Your task to perform on an android device: Open maps Image 0: 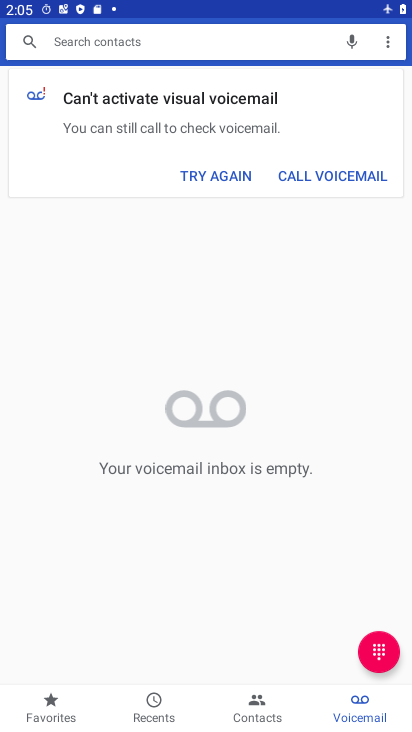
Step 0: press home button
Your task to perform on an android device: Open maps Image 1: 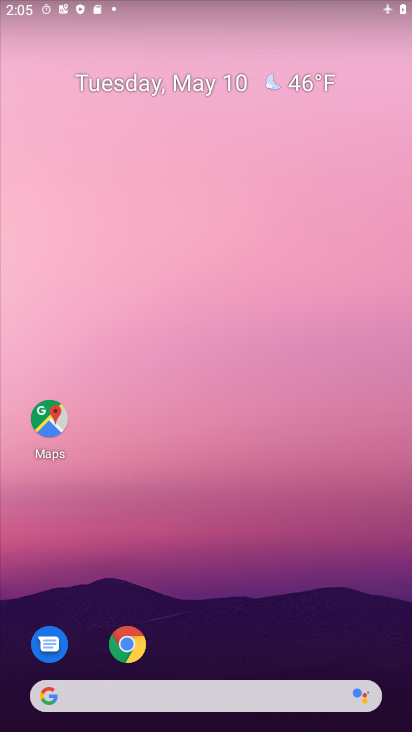
Step 1: drag from (268, 592) to (269, 211)
Your task to perform on an android device: Open maps Image 2: 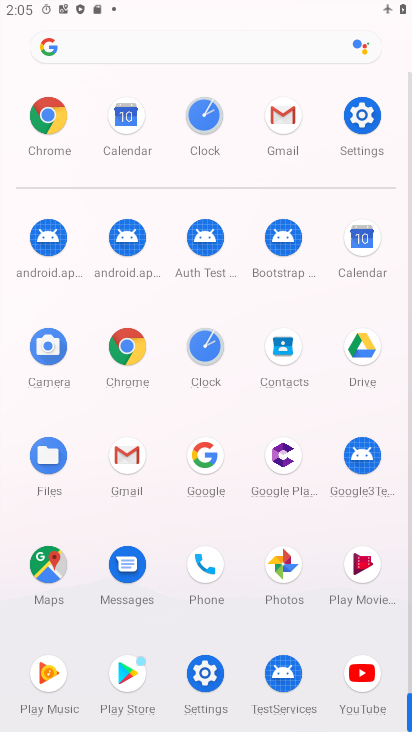
Step 2: click (43, 573)
Your task to perform on an android device: Open maps Image 3: 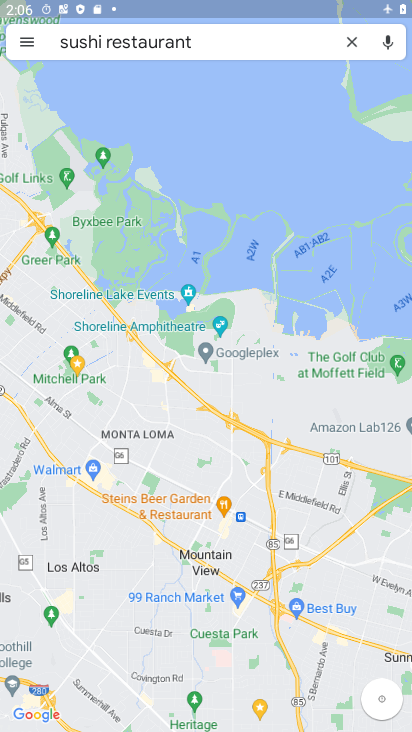
Step 3: task complete